Your task to perform on an android device: toggle show notifications on the lock screen Image 0: 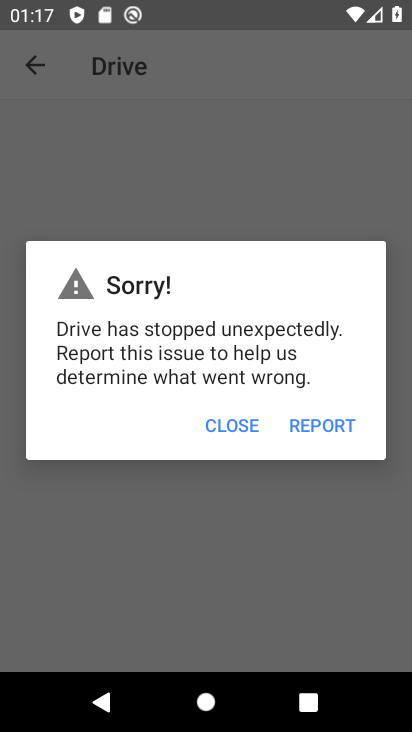
Step 0: drag from (215, 577) to (408, 258)
Your task to perform on an android device: toggle show notifications on the lock screen Image 1: 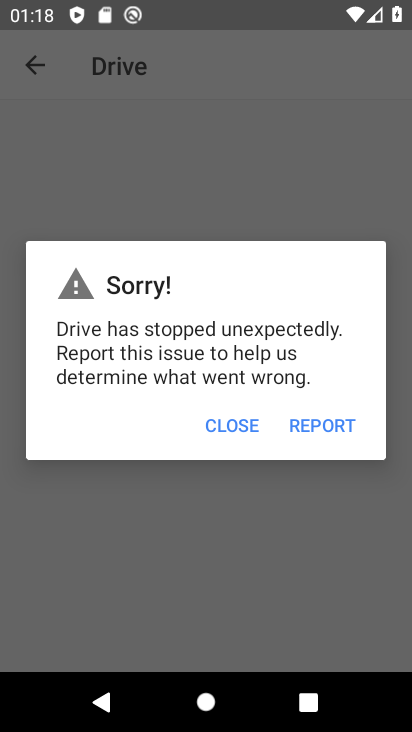
Step 1: drag from (297, 567) to (319, 171)
Your task to perform on an android device: toggle show notifications on the lock screen Image 2: 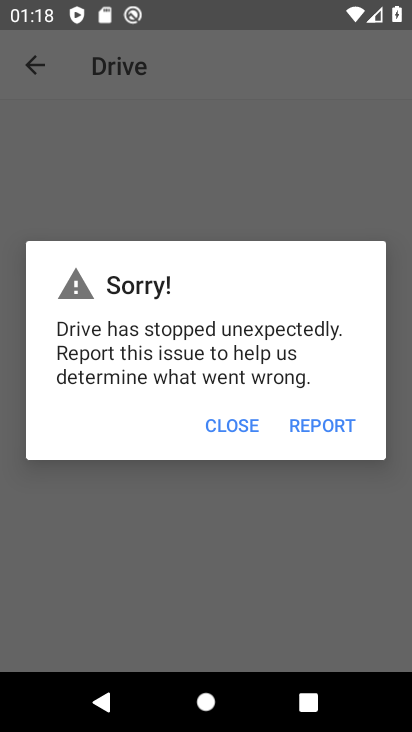
Step 2: press home button
Your task to perform on an android device: toggle show notifications on the lock screen Image 3: 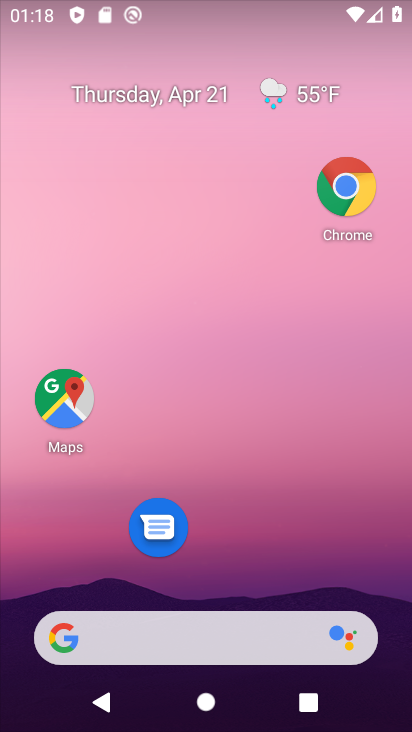
Step 3: drag from (292, 426) to (297, 148)
Your task to perform on an android device: toggle show notifications on the lock screen Image 4: 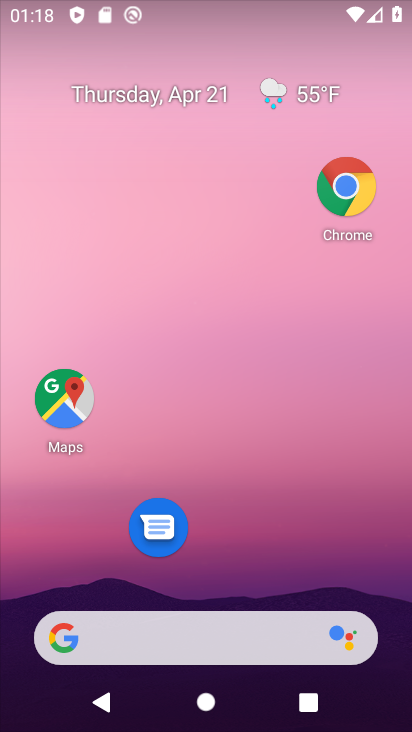
Step 4: drag from (264, 402) to (313, 7)
Your task to perform on an android device: toggle show notifications on the lock screen Image 5: 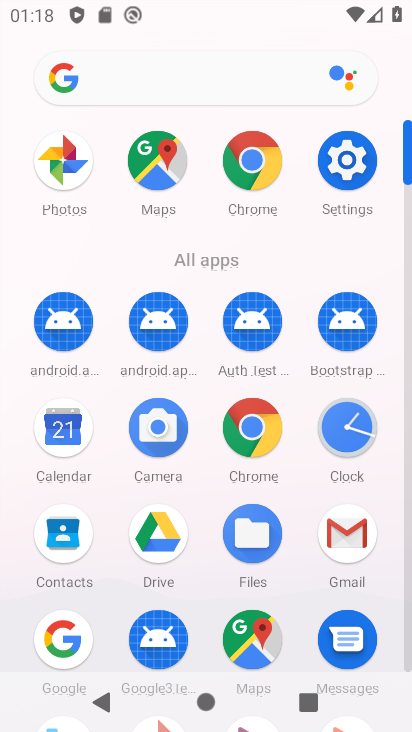
Step 5: click (356, 175)
Your task to perform on an android device: toggle show notifications on the lock screen Image 6: 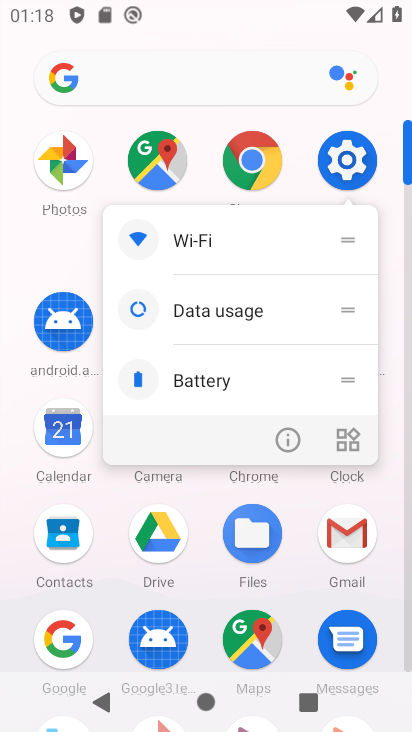
Step 6: click (279, 437)
Your task to perform on an android device: toggle show notifications on the lock screen Image 7: 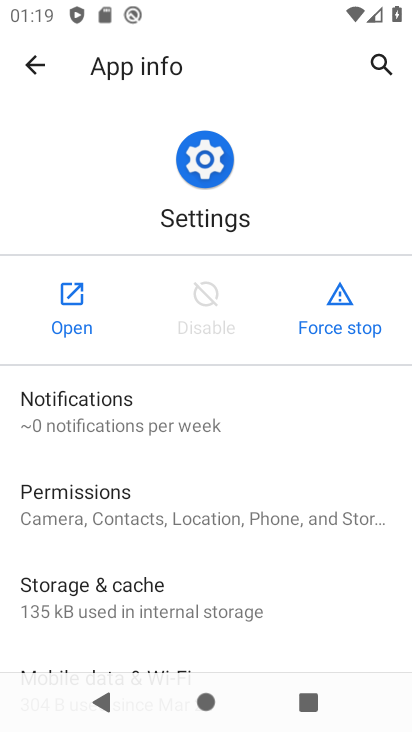
Step 7: click (72, 314)
Your task to perform on an android device: toggle show notifications on the lock screen Image 8: 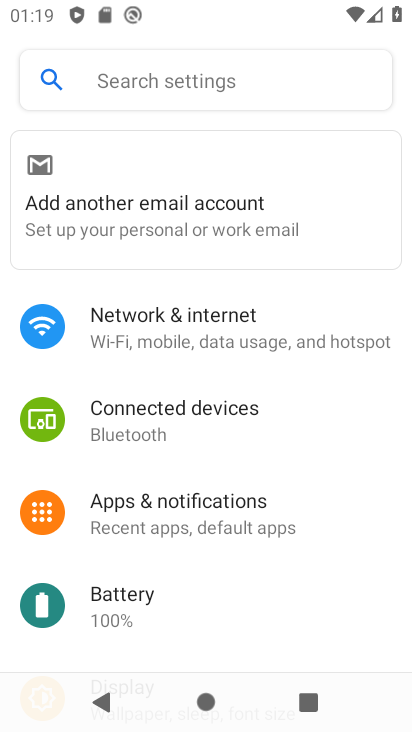
Step 8: drag from (222, 561) to (333, 139)
Your task to perform on an android device: toggle show notifications on the lock screen Image 9: 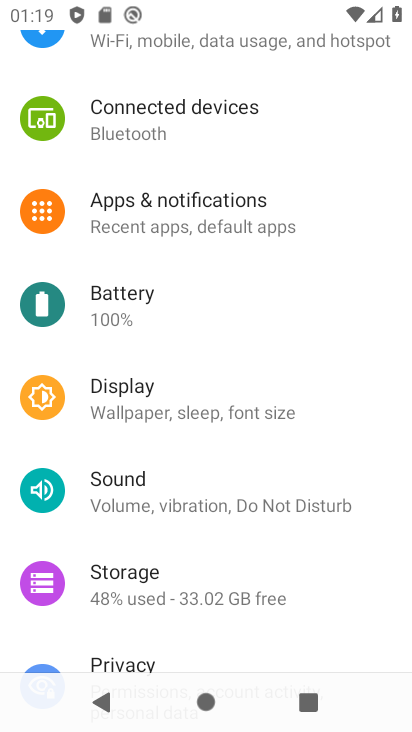
Step 9: click (219, 222)
Your task to perform on an android device: toggle show notifications on the lock screen Image 10: 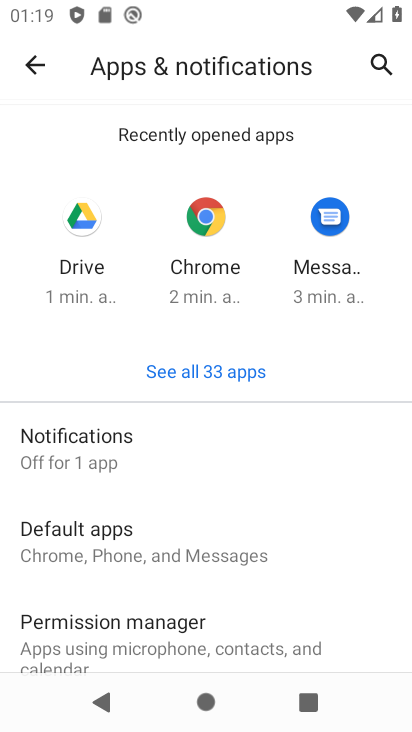
Step 10: drag from (289, 425) to (314, 170)
Your task to perform on an android device: toggle show notifications on the lock screen Image 11: 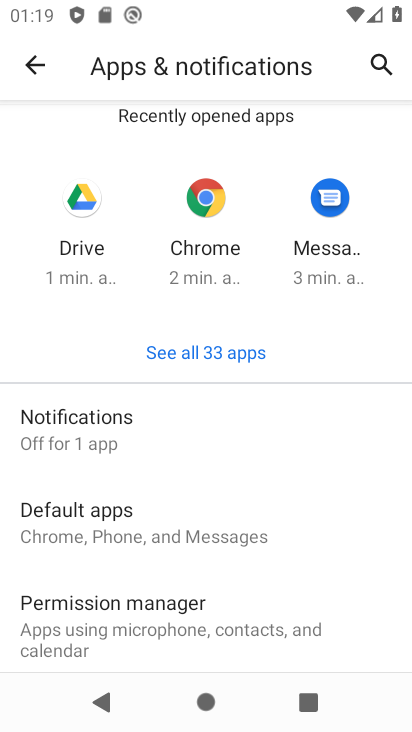
Step 11: drag from (268, 511) to (262, 338)
Your task to perform on an android device: toggle show notifications on the lock screen Image 12: 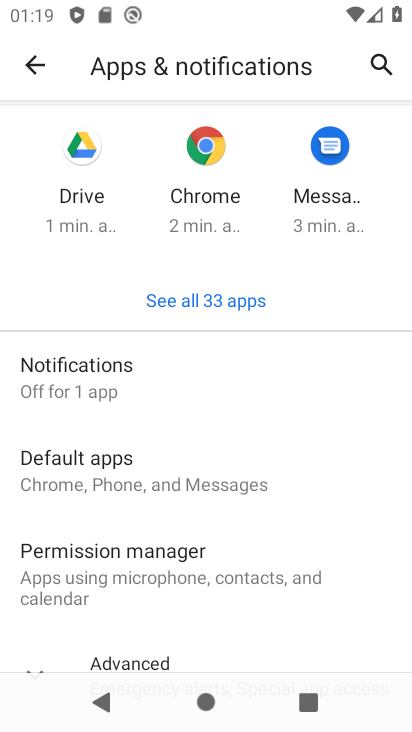
Step 12: drag from (255, 566) to (280, 403)
Your task to perform on an android device: toggle show notifications on the lock screen Image 13: 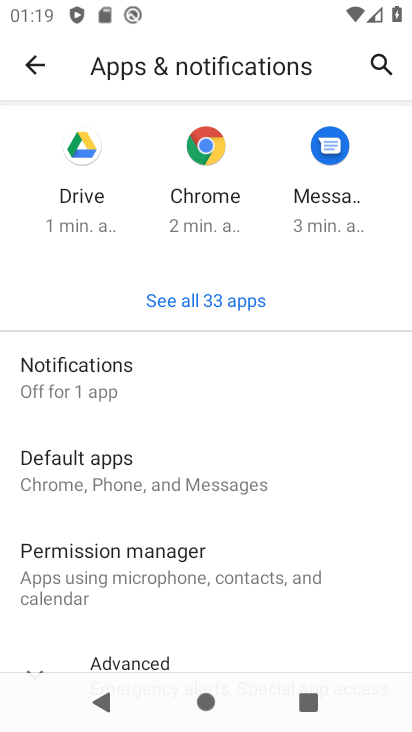
Step 13: click (90, 377)
Your task to perform on an android device: toggle show notifications on the lock screen Image 14: 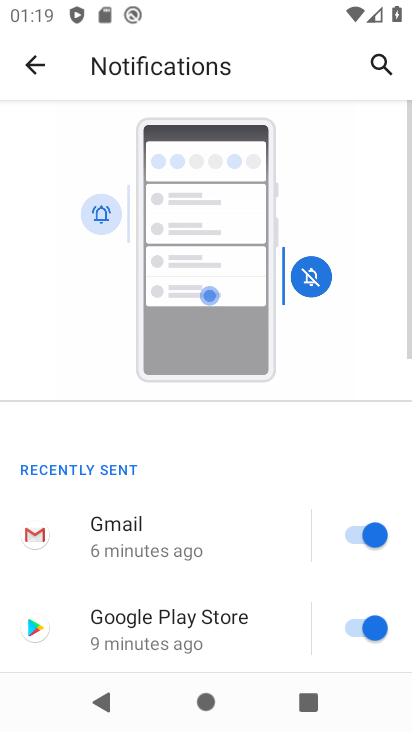
Step 14: drag from (249, 611) to (336, 151)
Your task to perform on an android device: toggle show notifications on the lock screen Image 15: 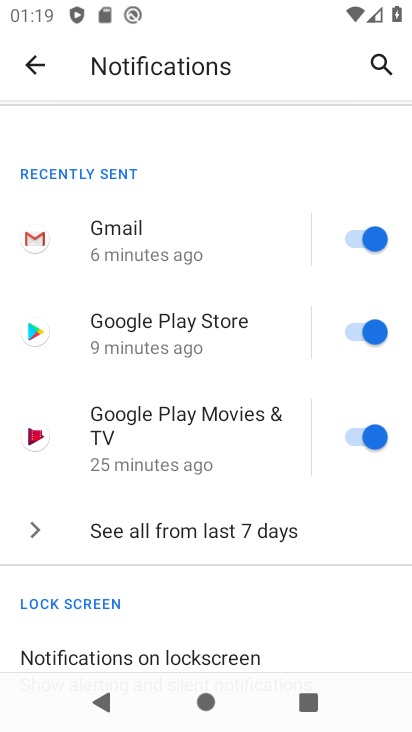
Step 15: drag from (235, 565) to (305, 45)
Your task to perform on an android device: toggle show notifications on the lock screen Image 16: 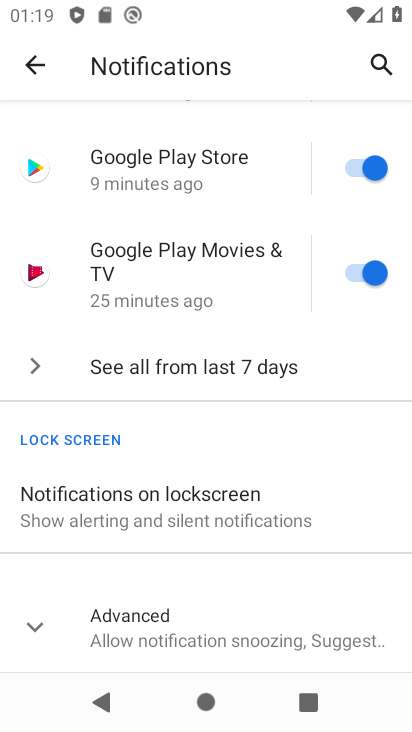
Step 16: click (215, 506)
Your task to perform on an android device: toggle show notifications on the lock screen Image 17: 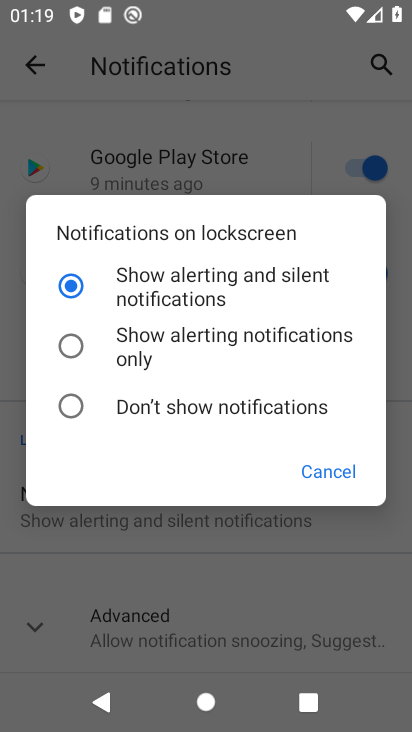
Step 17: click (164, 346)
Your task to perform on an android device: toggle show notifications on the lock screen Image 18: 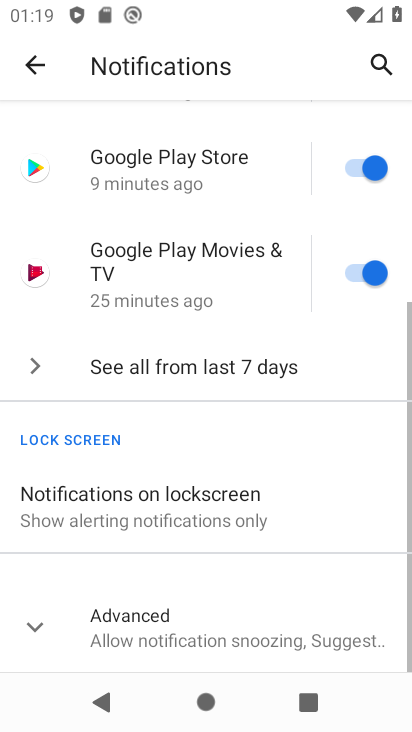
Step 18: task complete